Your task to perform on an android device: Go to internet settings Image 0: 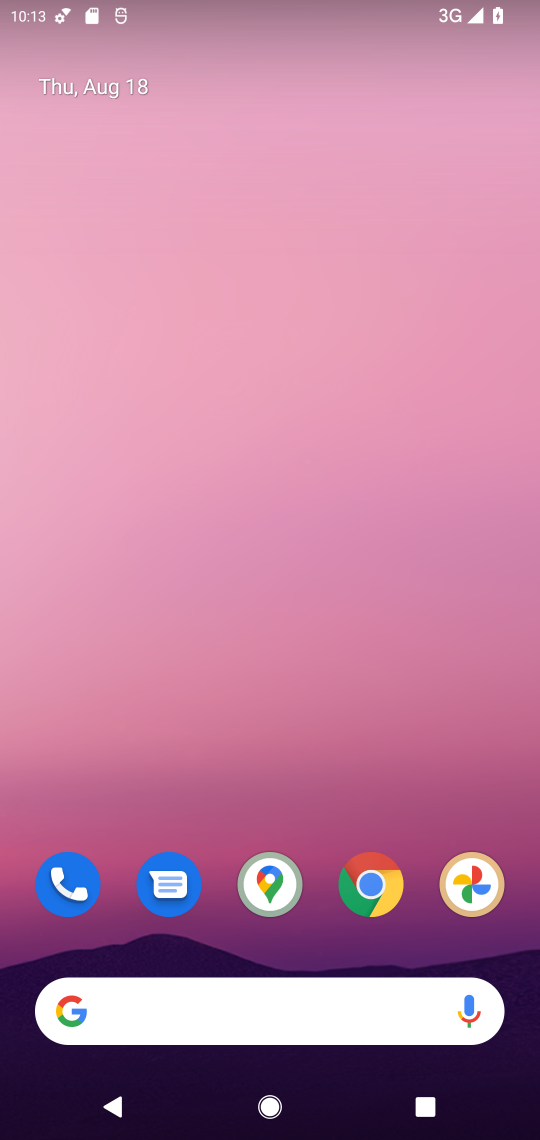
Step 0: drag from (229, 9) to (304, 856)
Your task to perform on an android device: Go to internet settings Image 1: 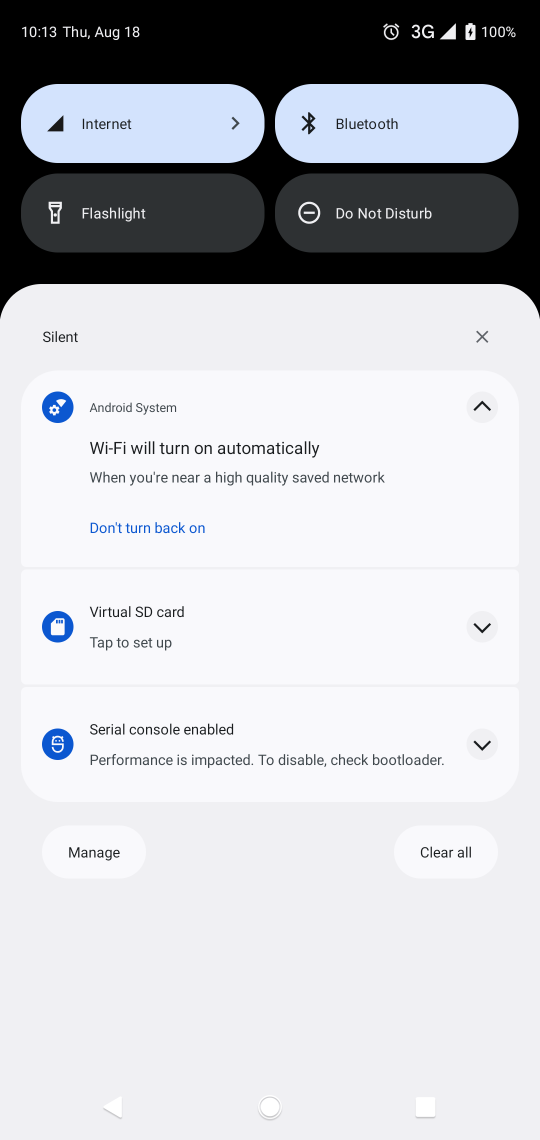
Step 1: click (226, 122)
Your task to perform on an android device: Go to internet settings Image 2: 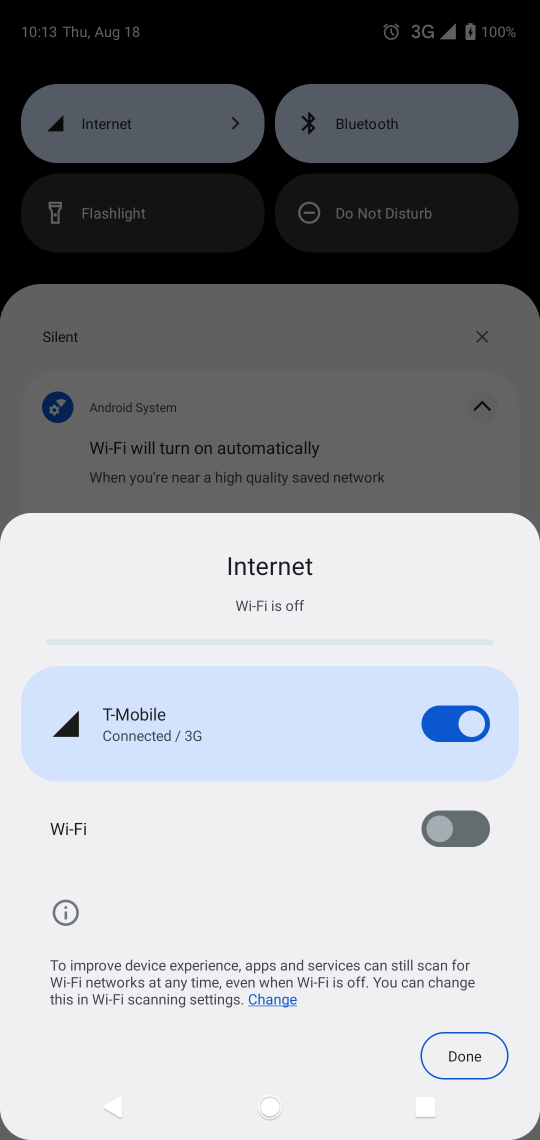
Step 2: click (225, 730)
Your task to perform on an android device: Go to internet settings Image 3: 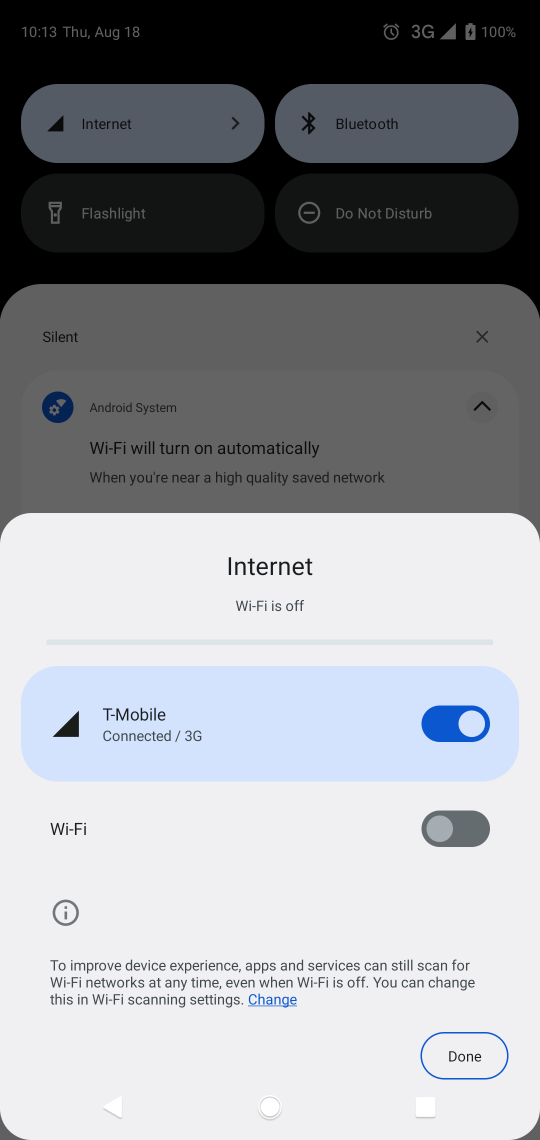
Step 3: click (225, 730)
Your task to perform on an android device: Go to internet settings Image 4: 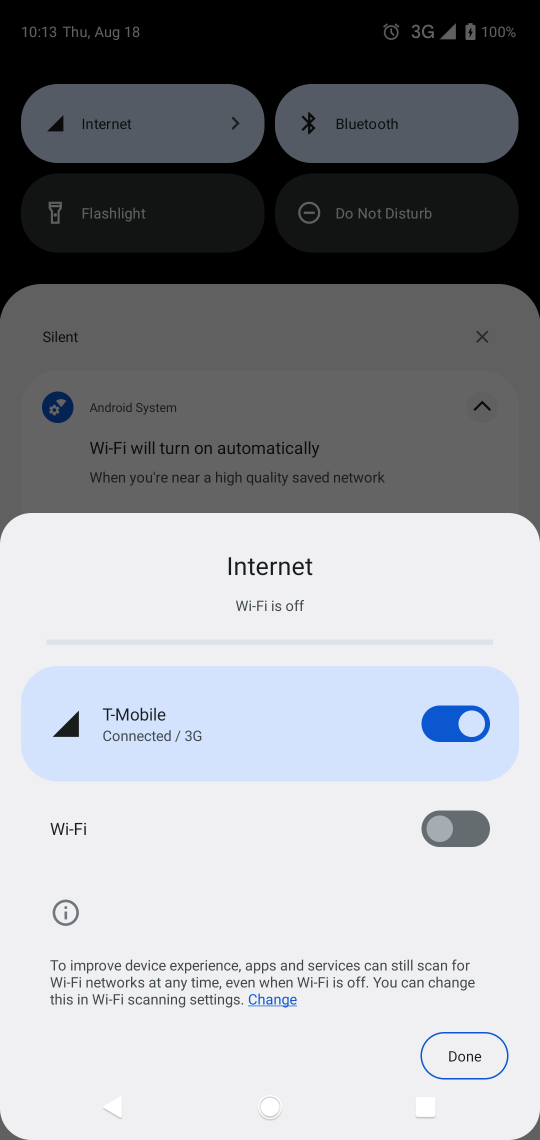
Step 4: task complete